Your task to perform on an android device: see sites visited before in the chrome app Image 0: 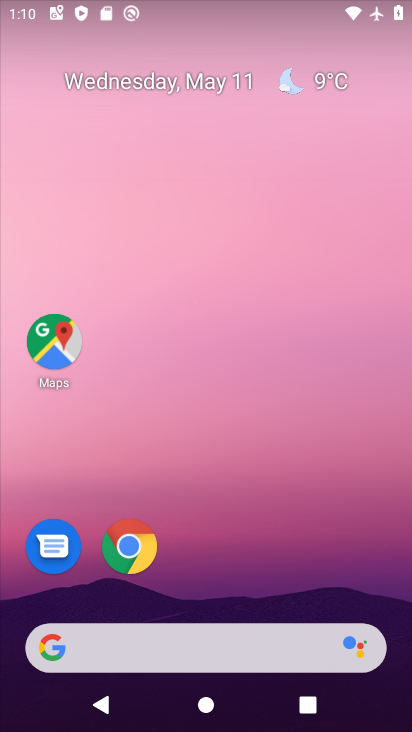
Step 0: drag from (177, 638) to (210, 63)
Your task to perform on an android device: see sites visited before in the chrome app Image 1: 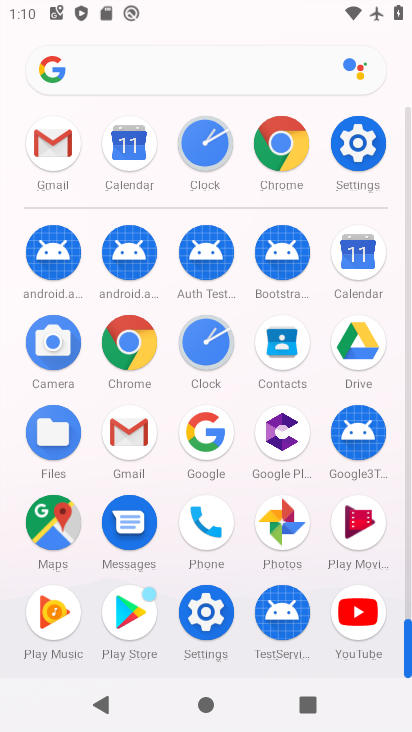
Step 1: click (122, 353)
Your task to perform on an android device: see sites visited before in the chrome app Image 2: 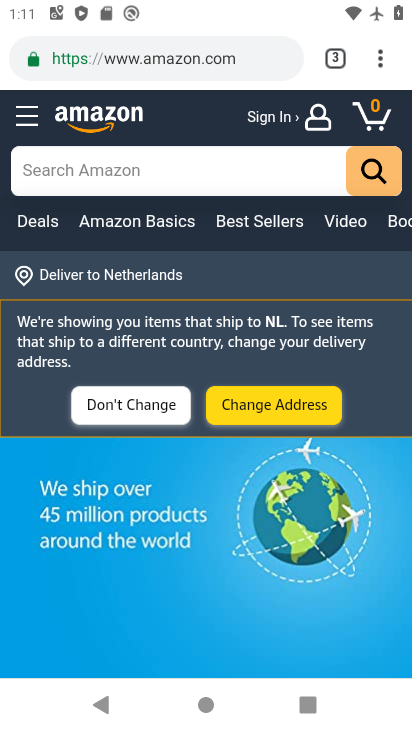
Step 2: drag from (367, 56) to (281, 263)
Your task to perform on an android device: see sites visited before in the chrome app Image 3: 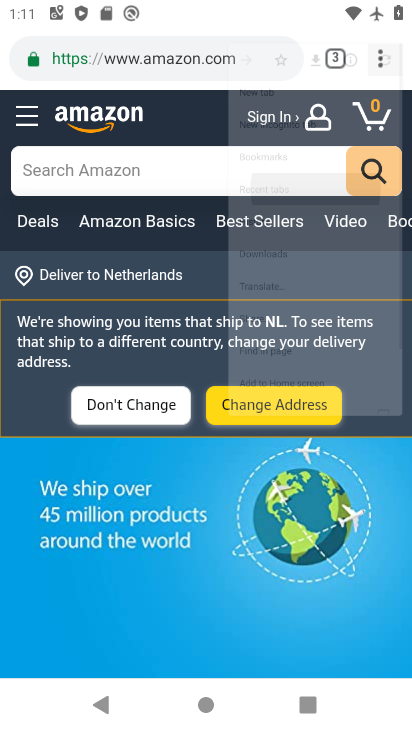
Step 3: click (258, 274)
Your task to perform on an android device: see sites visited before in the chrome app Image 4: 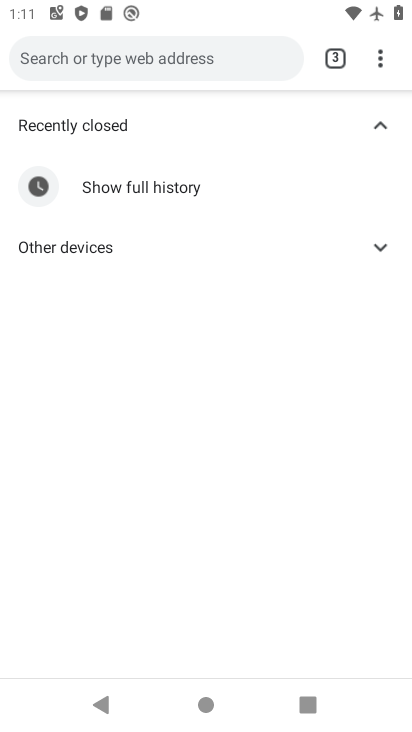
Step 4: task complete